Your task to perform on an android device: toggle javascript in the chrome app Image 0: 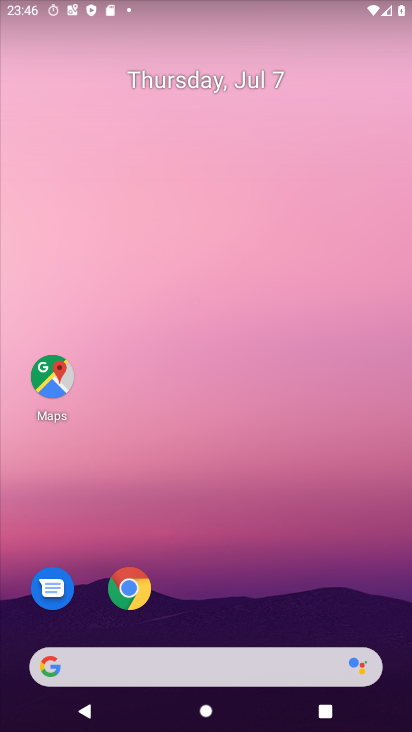
Step 0: drag from (178, 603) to (310, 169)
Your task to perform on an android device: toggle javascript in the chrome app Image 1: 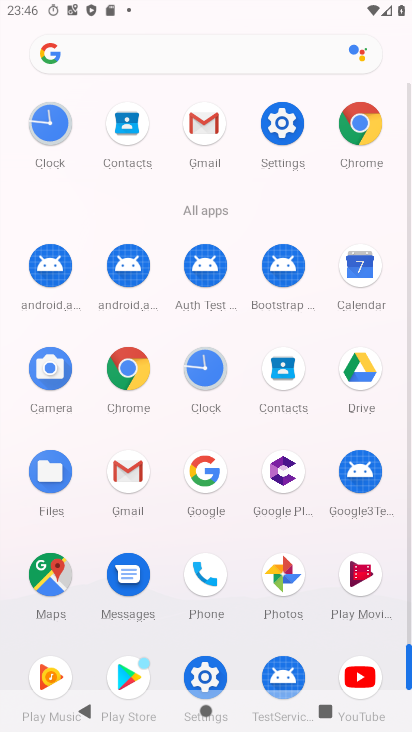
Step 1: click (114, 365)
Your task to perform on an android device: toggle javascript in the chrome app Image 2: 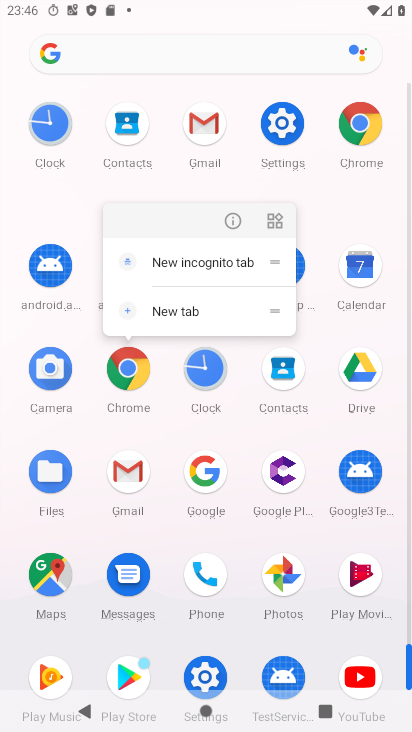
Step 2: click (232, 214)
Your task to perform on an android device: toggle javascript in the chrome app Image 3: 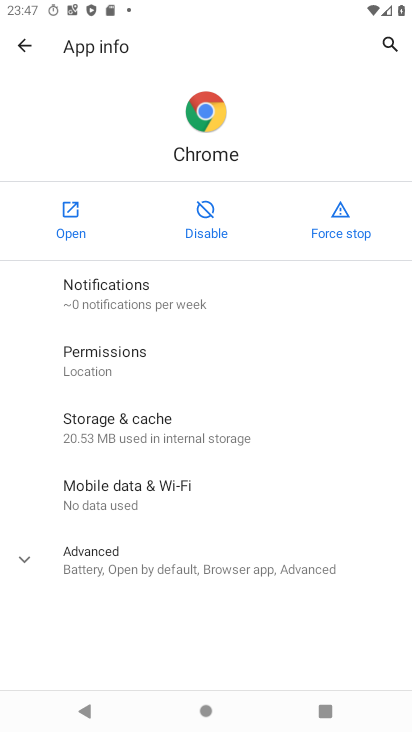
Step 3: click (71, 213)
Your task to perform on an android device: toggle javascript in the chrome app Image 4: 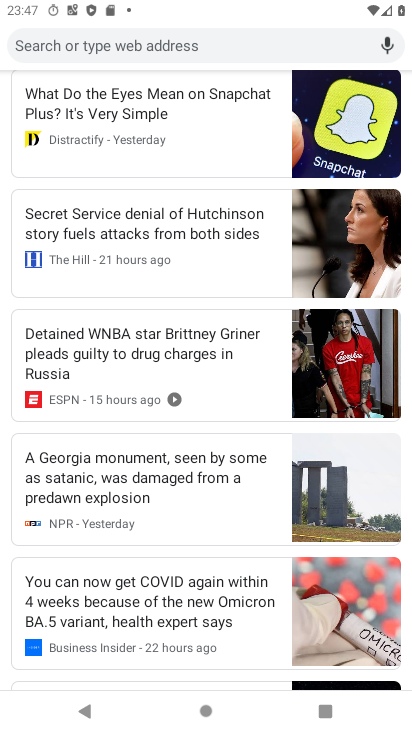
Step 4: drag from (167, 112) to (319, 710)
Your task to perform on an android device: toggle javascript in the chrome app Image 5: 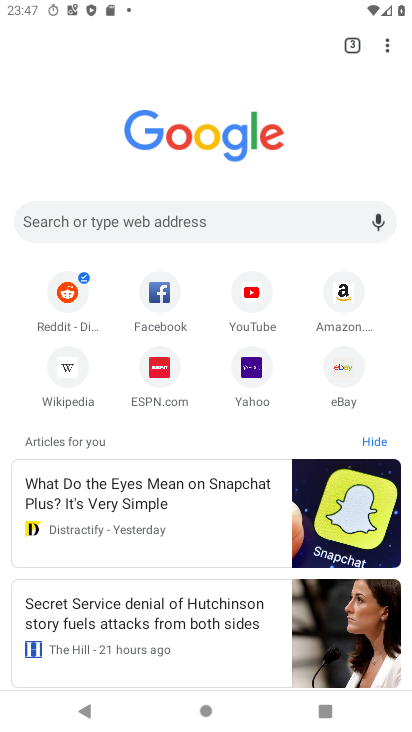
Step 5: click (390, 44)
Your task to perform on an android device: toggle javascript in the chrome app Image 6: 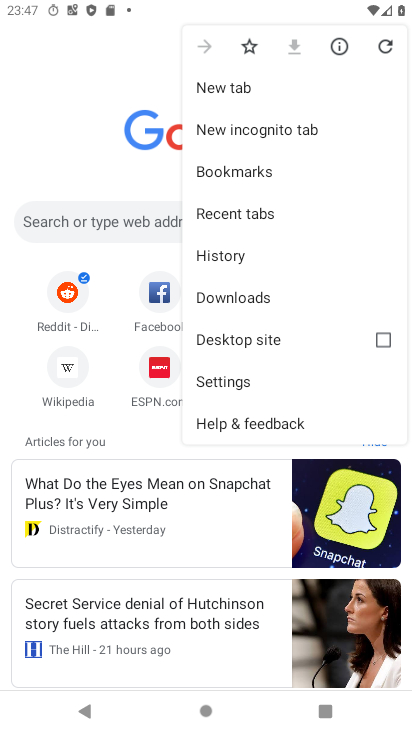
Step 6: click (244, 387)
Your task to perform on an android device: toggle javascript in the chrome app Image 7: 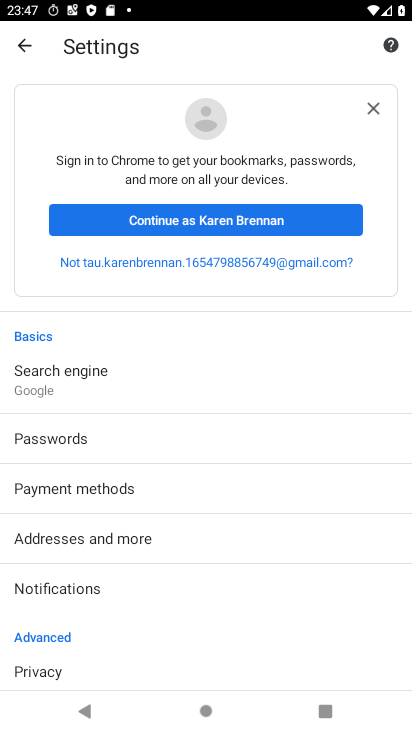
Step 7: drag from (200, 574) to (215, 293)
Your task to perform on an android device: toggle javascript in the chrome app Image 8: 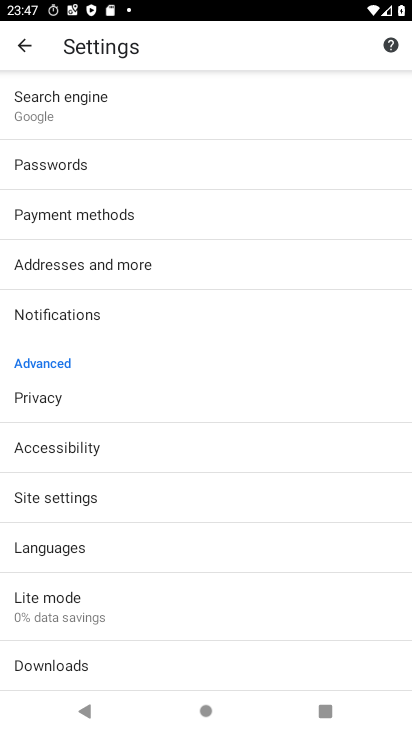
Step 8: drag from (230, 600) to (259, 370)
Your task to perform on an android device: toggle javascript in the chrome app Image 9: 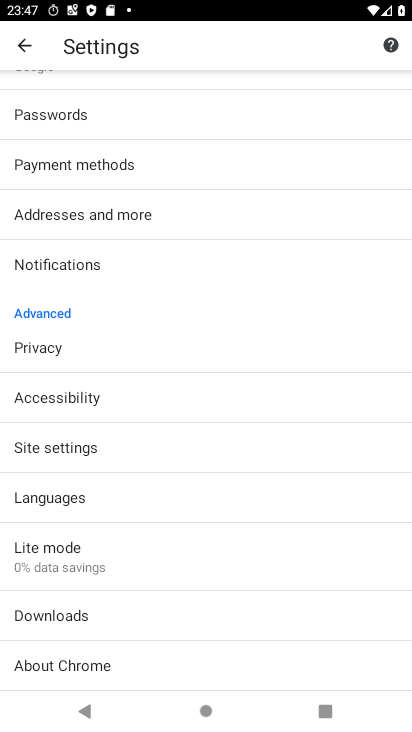
Step 9: drag from (149, 309) to (288, 731)
Your task to perform on an android device: toggle javascript in the chrome app Image 10: 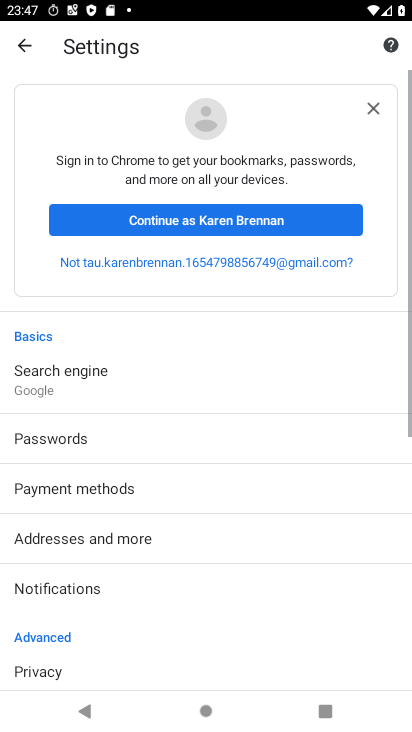
Step 10: drag from (265, 575) to (253, 111)
Your task to perform on an android device: toggle javascript in the chrome app Image 11: 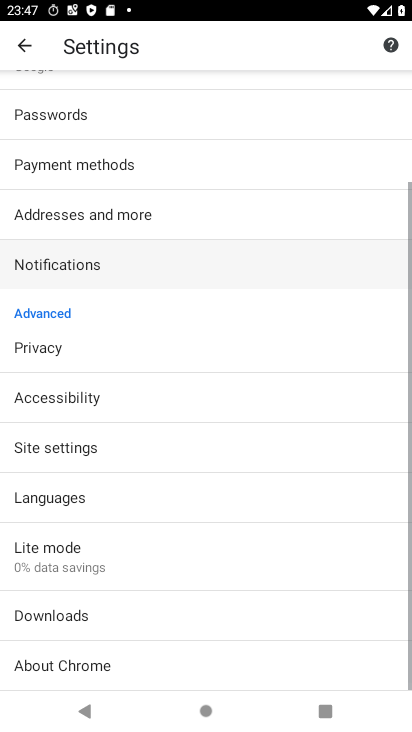
Step 11: click (280, 321)
Your task to perform on an android device: toggle javascript in the chrome app Image 12: 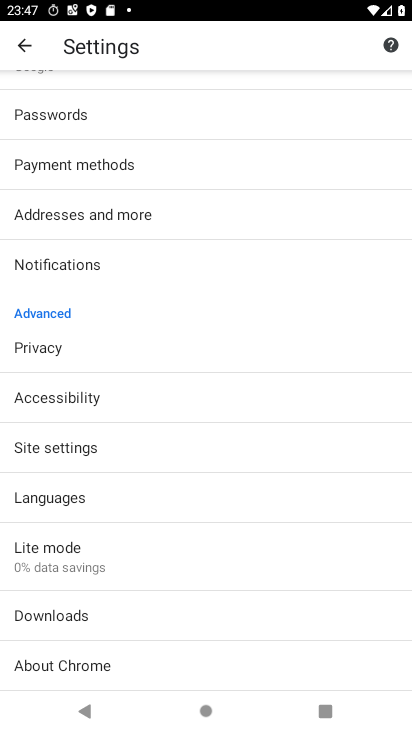
Step 12: drag from (195, 591) to (221, 318)
Your task to perform on an android device: toggle javascript in the chrome app Image 13: 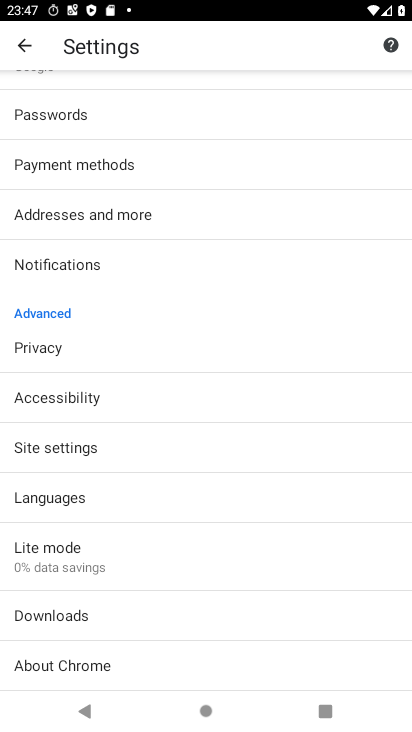
Step 13: drag from (244, 560) to (267, 316)
Your task to perform on an android device: toggle javascript in the chrome app Image 14: 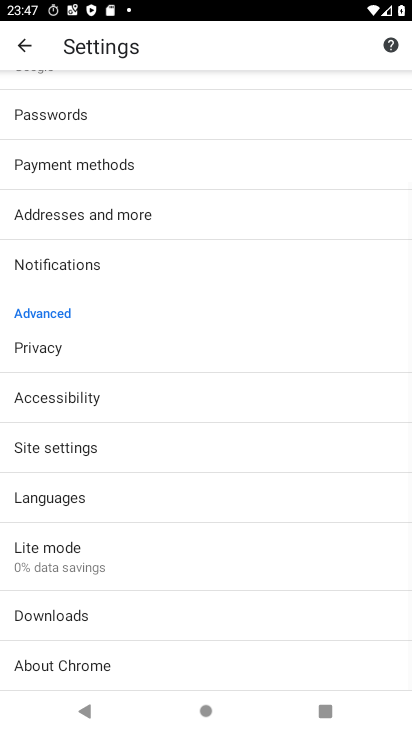
Step 14: click (287, 235)
Your task to perform on an android device: toggle javascript in the chrome app Image 15: 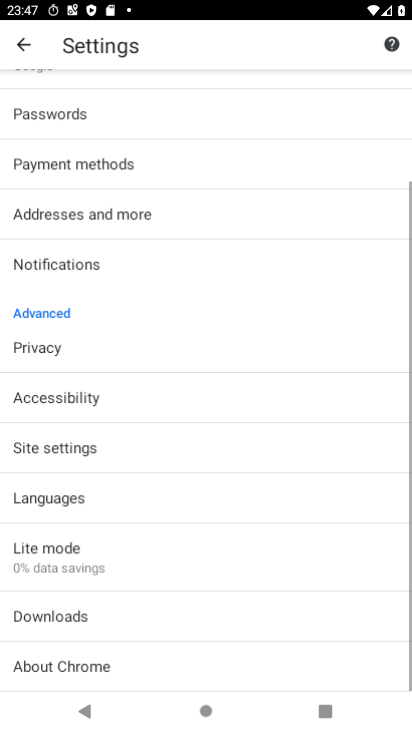
Step 15: drag from (243, 330) to (307, 700)
Your task to perform on an android device: toggle javascript in the chrome app Image 16: 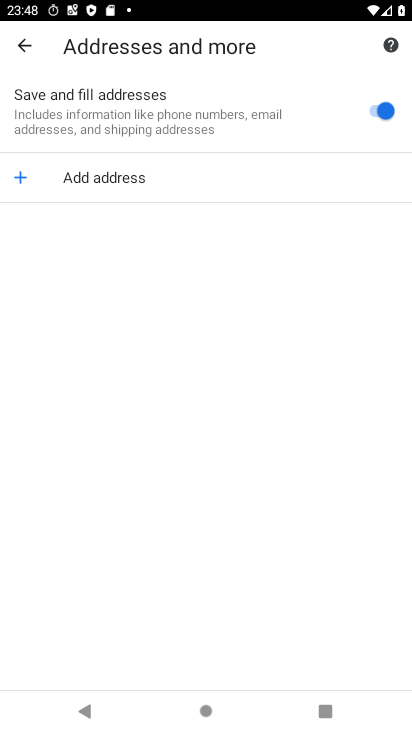
Step 16: click (20, 52)
Your task to perform on an android device: toggle javascript in the chrome app Image 17: 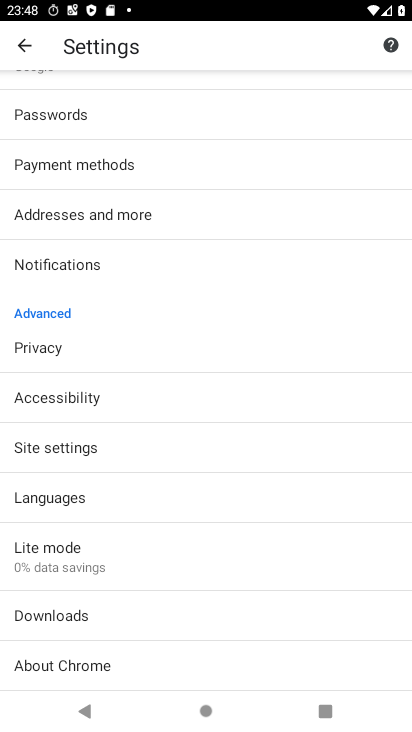
Step 17: drag from (159, 292) to (211, 542)
Your task to perform on an android device: toggle javascript in the chrome app Image 18: 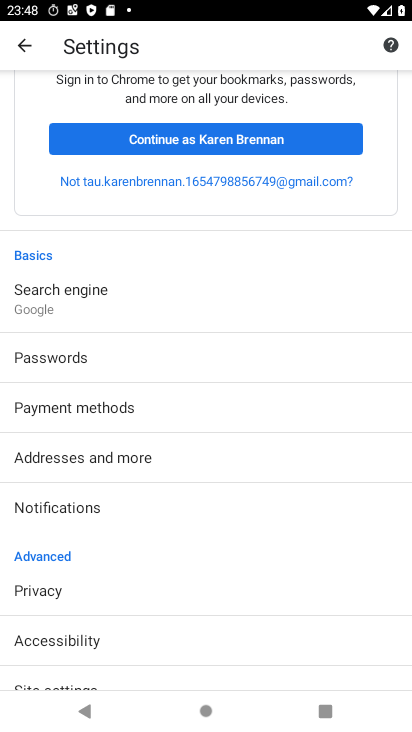
Step 18: drag from (152, 194) to (289, 724)
Your task to perform on an android device: toggle javascript in the chrome app Image 19: 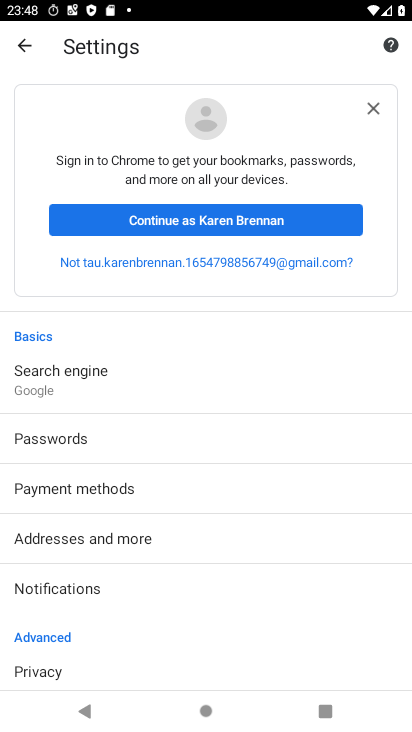
Step 19: drag from (223, 444) to (289, 712)
Your task to perform on an android device: toggle javascript in the chrome app Image 20: 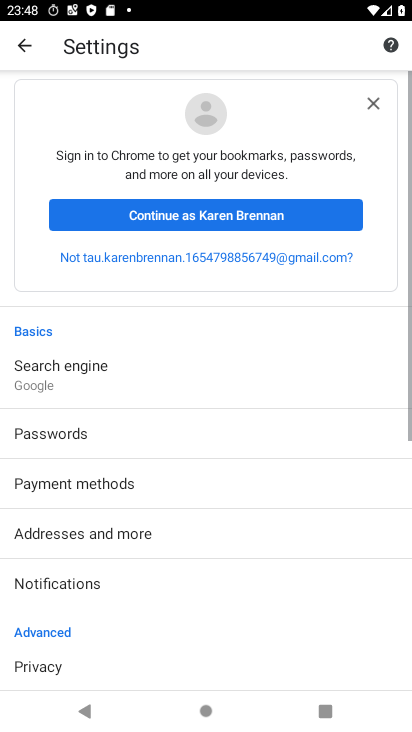
Step 20: drag from (247, 577) to (285, 394)
Your task to perform on an android device: toggle javascript in the chrome app Image 21: 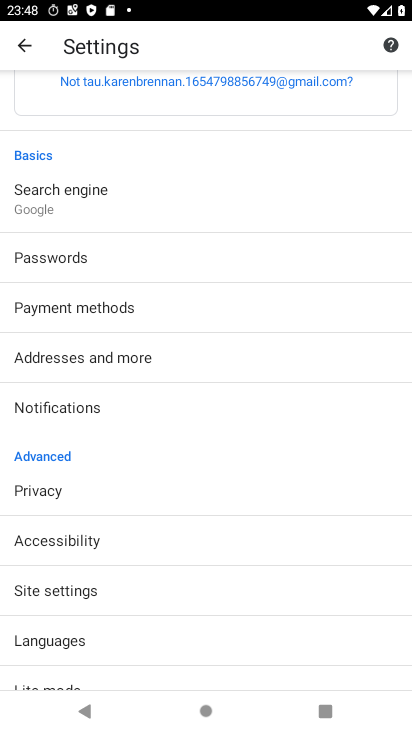
Step 21: drag from (213, 188) to (276, 731)
Your task to perform on an android device: toggle javascript in the chrome app Image 22: 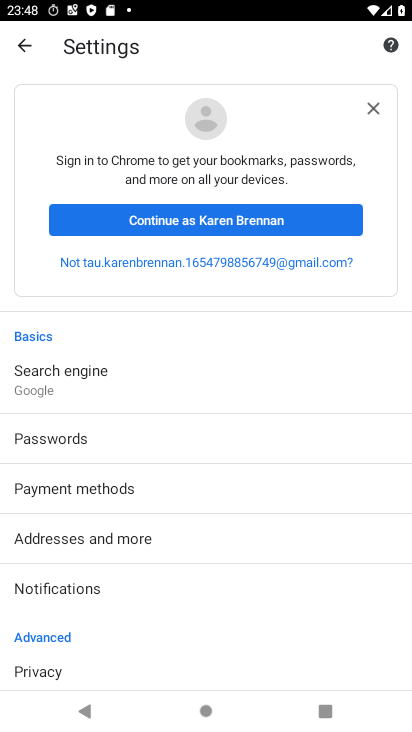
Step 22: drag from (136, 353) to (257, 713)
Your task to perform on an android device: toggle javascript in the chrome app Image 23: 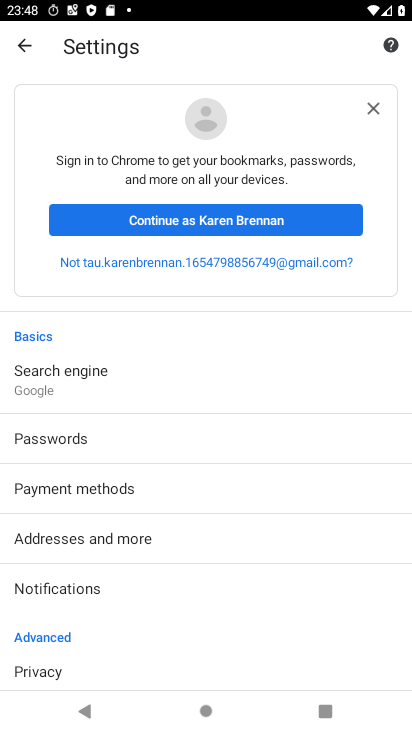
Step 23: drag from (112, 380) to (233, 719)
Your task to perform on an android device: toggle javascript in the chrome app Image 24: 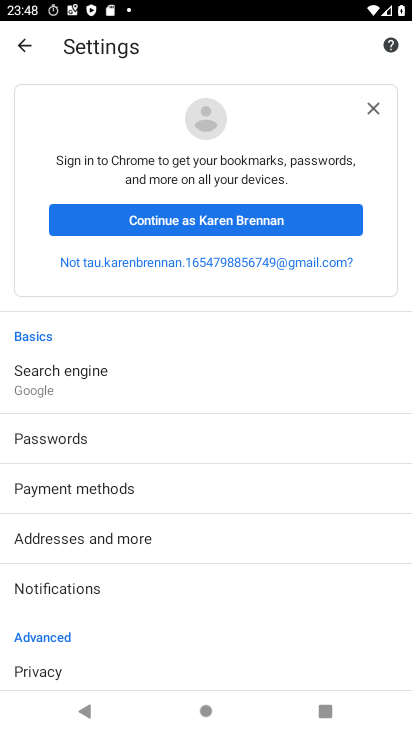
Step 24: drag from (195, 392) to (357, 718)
Your task to perform on an android device: toggle javascript in the chrome app Image 25: 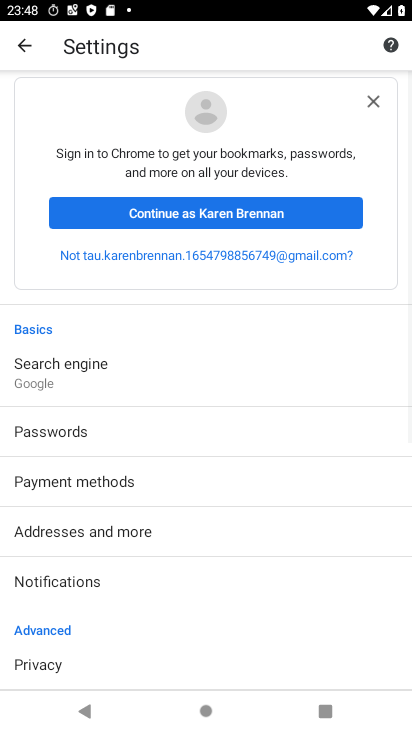
Step 25: drag from (139, 357) to (250, 603)
Your task to perform on an android device: toggle javascript in the chrome app Image 26: 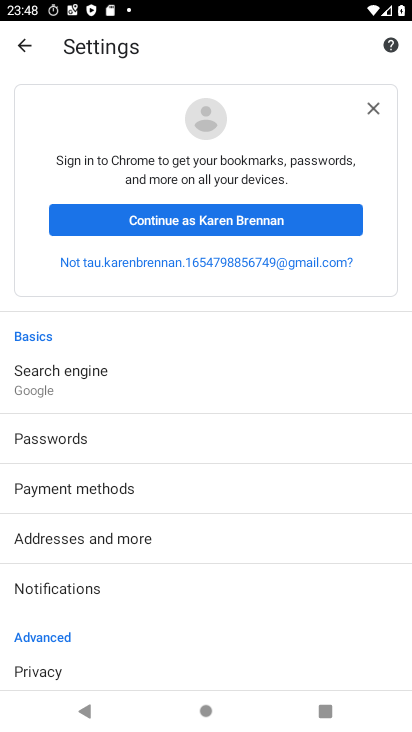
Step 26: drag from (192, 357) to (221, 630)
Your task to perform on an android device: toggle javascript in the chrome app Image 27: 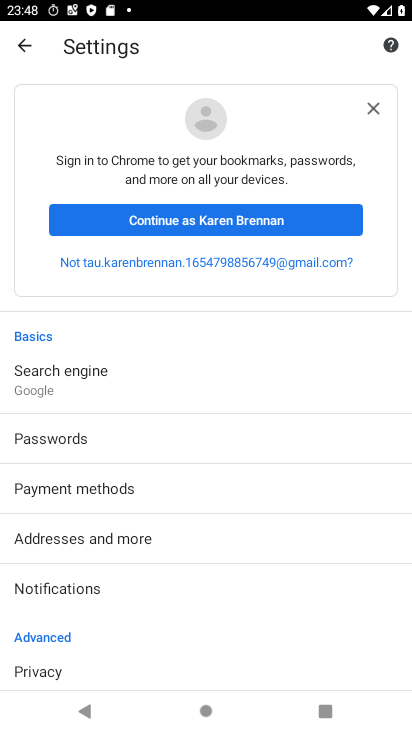
Step 27: drag from (181, 372) to (282, 712)
Your task to perform on an android device: toggle javascript in the chrome app Image 28: 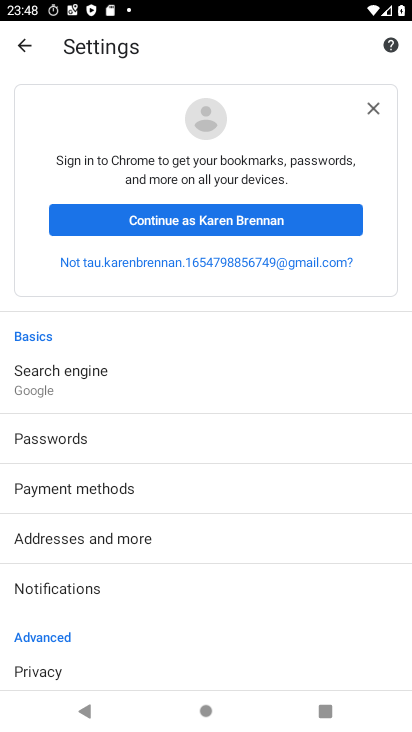
Step 28: drag from (180, 635) to (267, 163)
Your task to perform on an android device: toggle javascript in the chrome app Image 29: 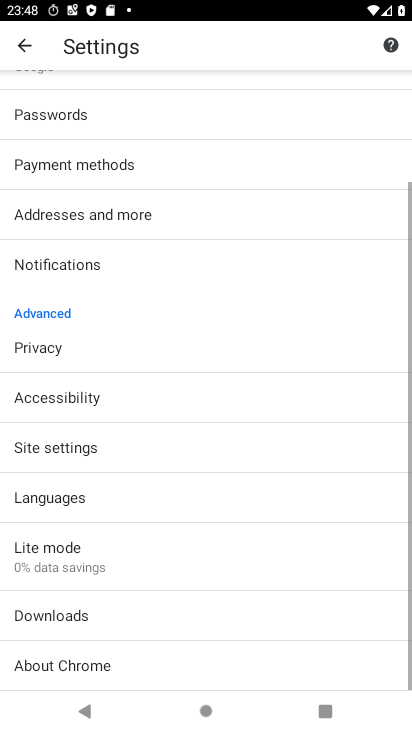
Step 29: drag from (213, 611) to (231, 272)
Your task to perform on an android device: toggle javascript in the chrome app Image 30: 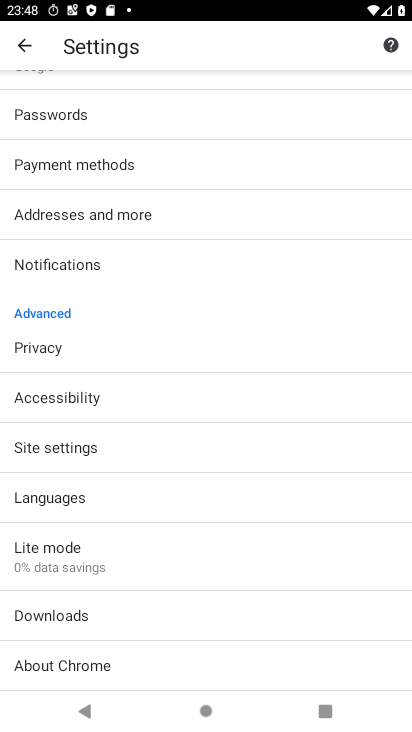
Step 30: drag from (156, 610) to (185, 116)
Your task to perform on an android device: toggle javascript in the chrome app Image 31: 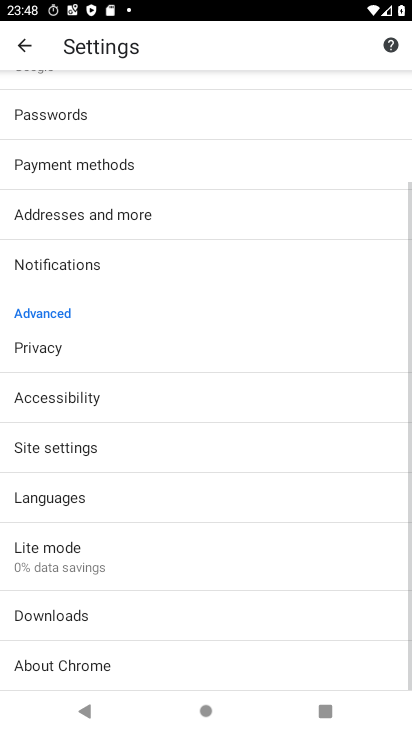
Step 31: click (129, 450)
Your task to perform on an android device: toggle javascript in the chrome app Image 32: 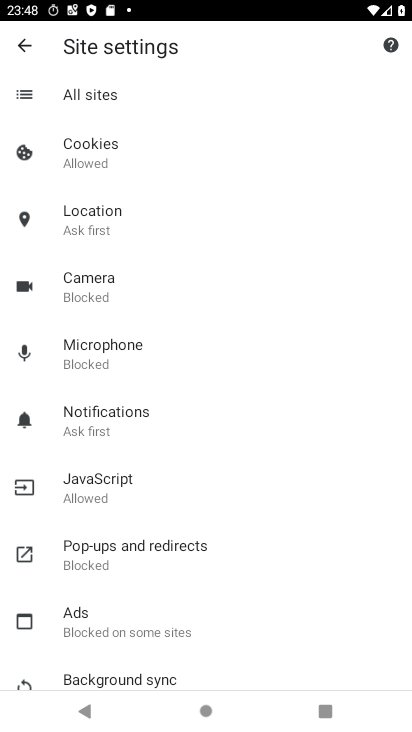
Step 32: drag from (240, 566) to (256, 318)
Your task to perform on an android device: toggle javascript in the chrome app Image 33: 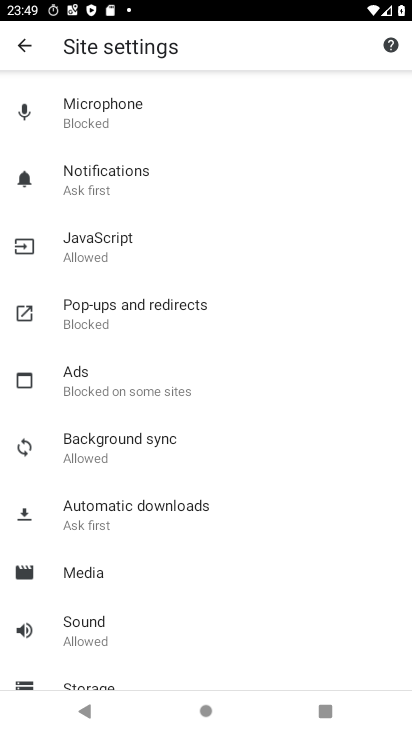
Step 33: click (119, 253)
Your task to perform on an android device: toggle javascript in the chrome app Image 34: 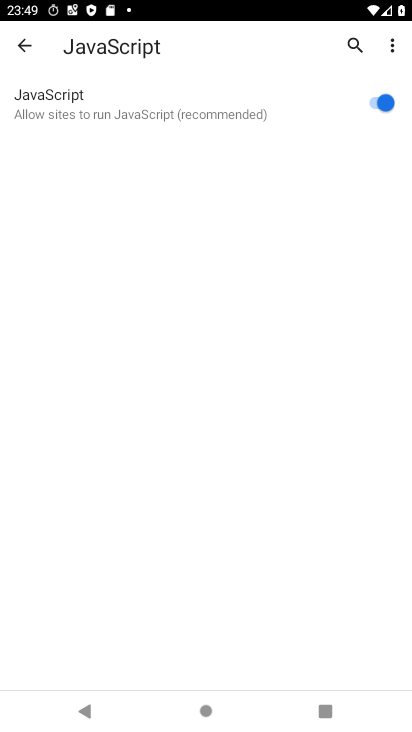
Step 34: click (369, 96)
Your task to perform on an android device: toggle javascript in the chrome app Image 35: 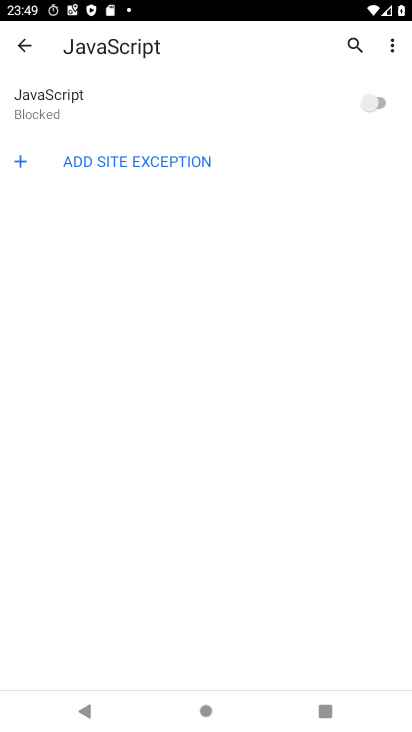
Step 35: task complete